Your task to perform on an android device: turn off notifications settings in the gmail app Image 0: 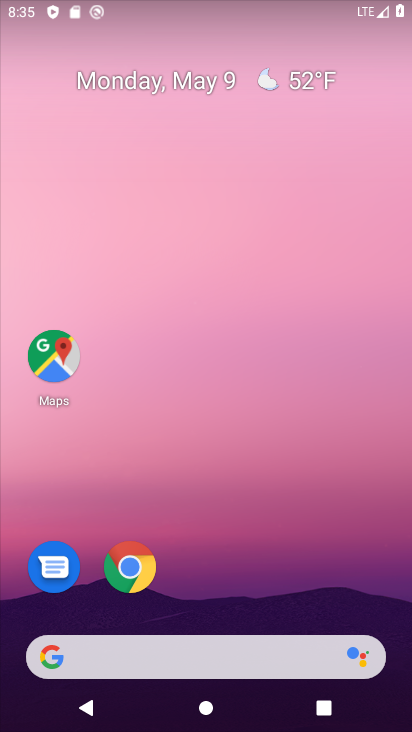
Step 0: drag from (297, 574) to (254, 90)
Your task to perform on an android device: turn off notifications settings in the gmail app Image 1: 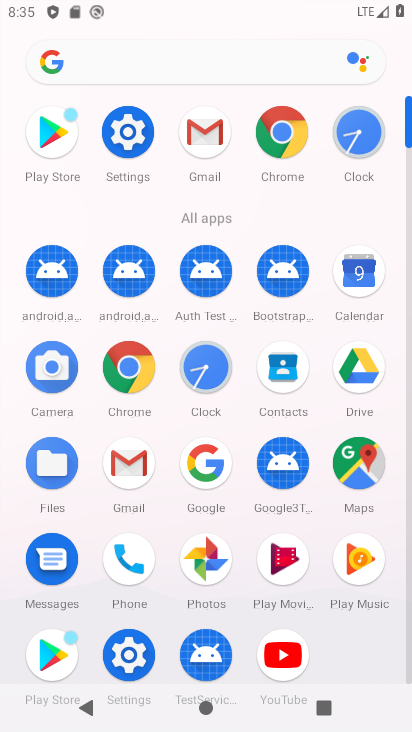
Step 1: click (121, 467)
Your task to perform on an android device: turn off notifications settings in the gmail app Image 2: 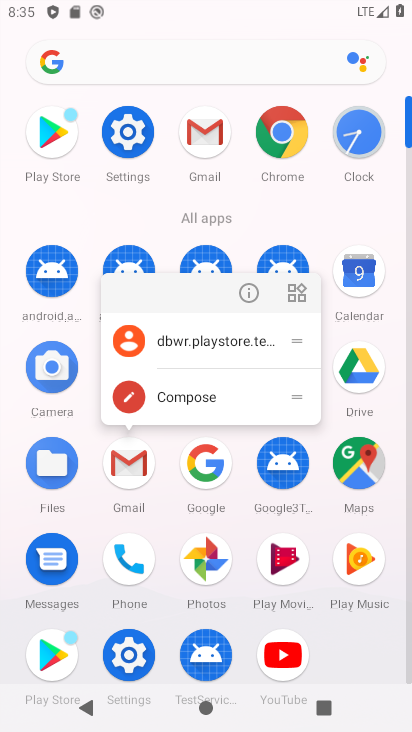
Step 2: click (249, 301)
Your task to perform on an android device: turn off notifications settings in the gmail app Image 3: 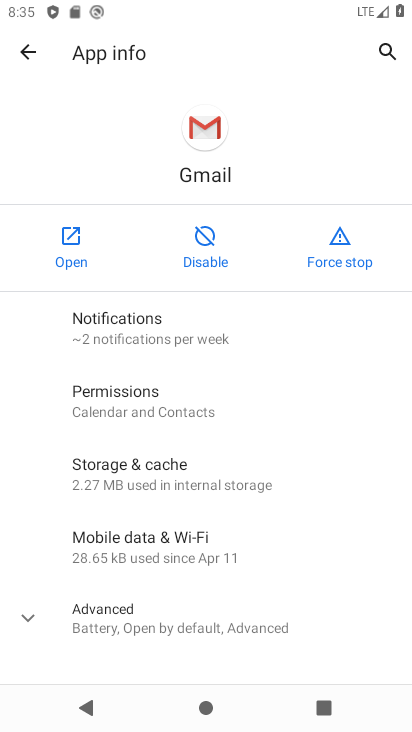
Step 3: click (211, 336)
Your task to perform on an android device: turn off notifications settings in the gmail app Image 4: 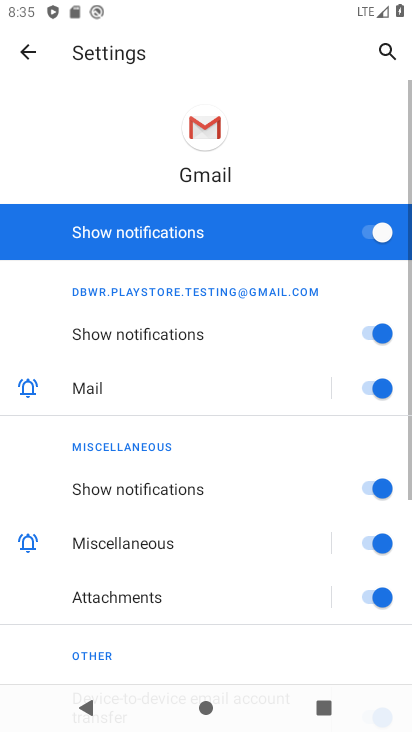
Step 4: click (375, 229)
Your task to perform on an android device: turn off notifications settings in the gmail app Image 5: 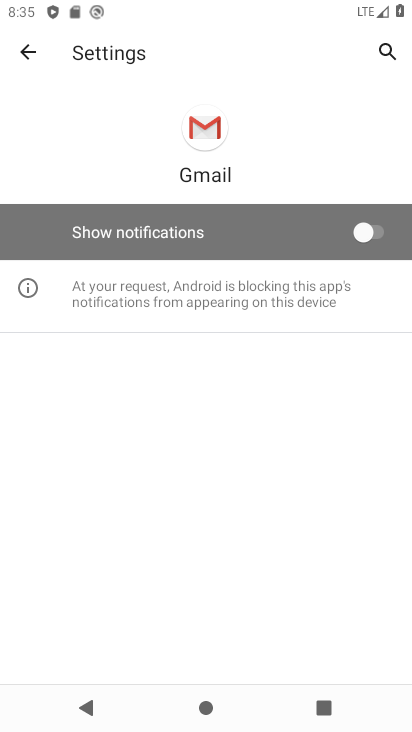
Step 5: task complete